Your task to perform on an android device: read, delete, or share a saved page in the chrome app Image 0: 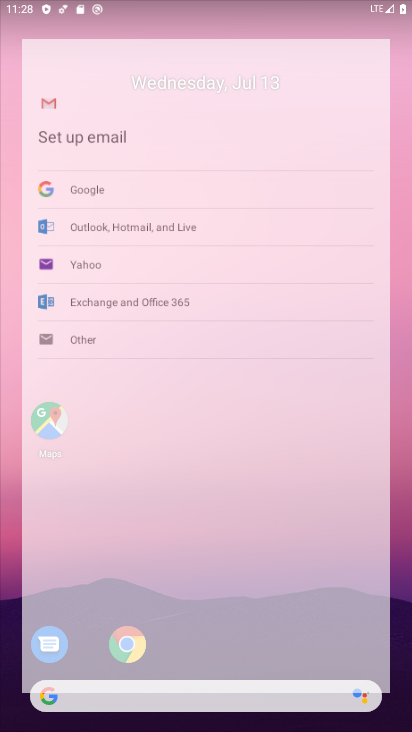
Step 0: drag from (194, 660) to (292, 191)
Your task to perform on an android device: read, delete, or share a saved page in the chrome app Image 1: 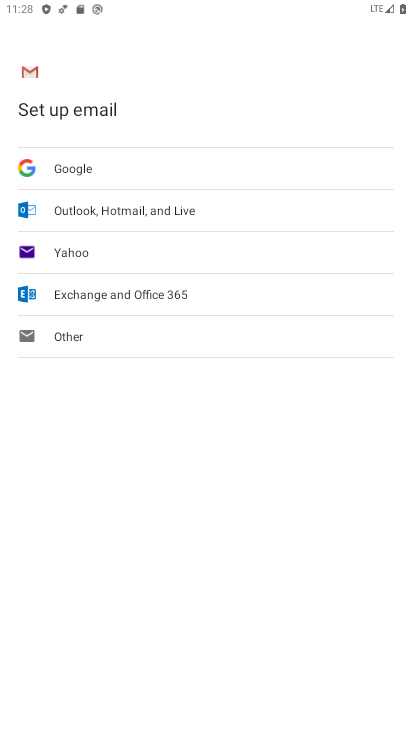
Step 1: press home button
Your task to perform on an android device: read, delete, or share a saved page in the chrome app Image 2: 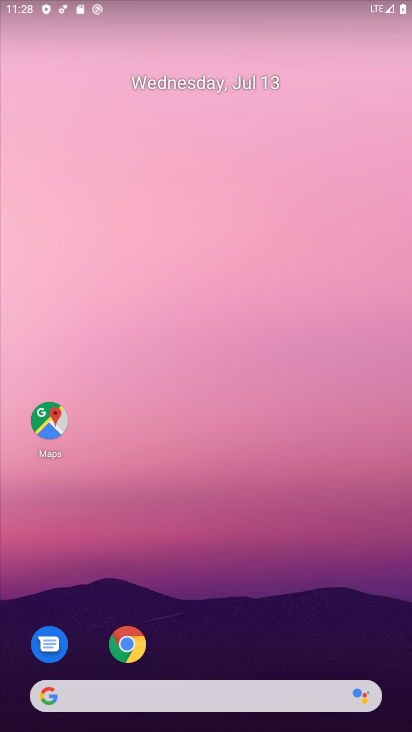
Step 2: click (129, 648)
Your task to perform on an android device: read, delete, or share a saved page in the chrome app Image 3: 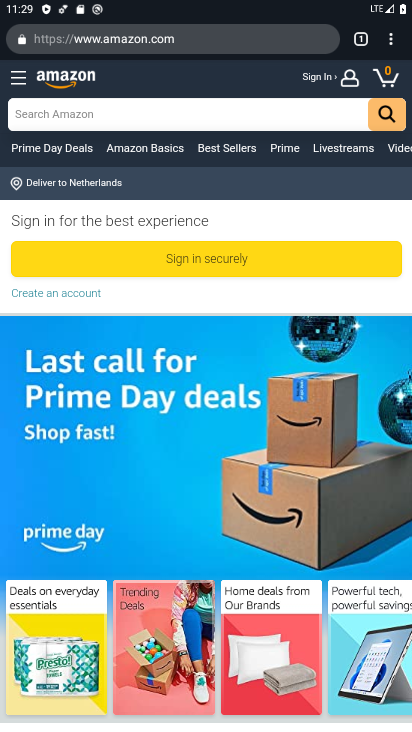
Step 3: drag from (389, 30) to (328, 291)
Your task to perform on an android device: read, delete, or share a saved page in the chrome app Image 4: 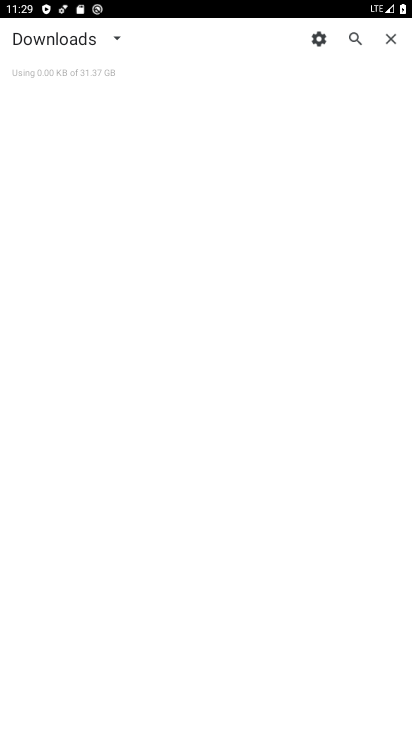
Step 4: click (76, 35)
Your task to perform on an android device: read, delete, or share a saved page in the chrome app Image 5: 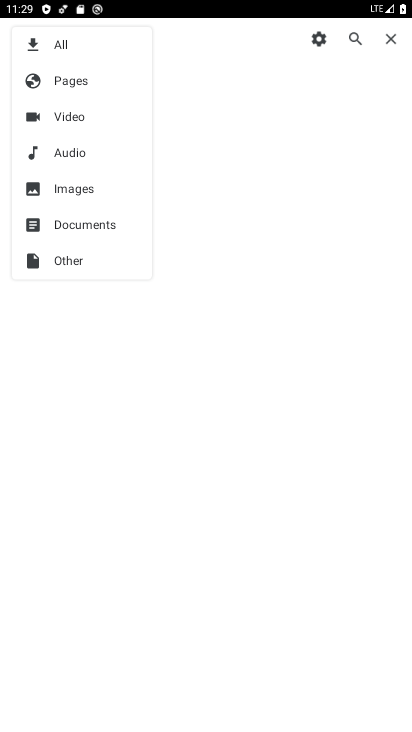
Step 5: click (93, 80)
Your task to perform on an android device: read, delete, or share a saved page in the chrome app Image 6: 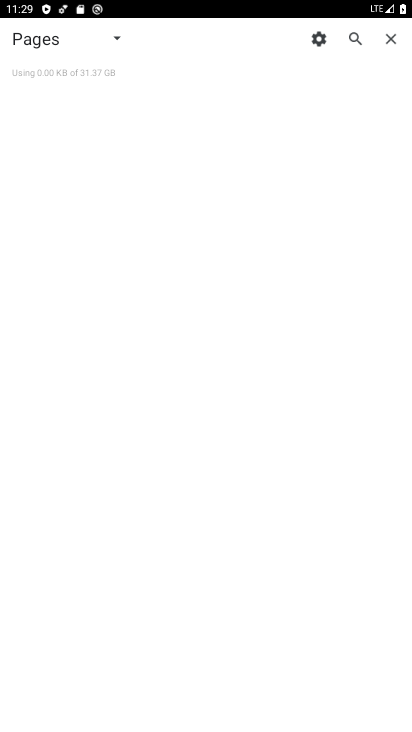
Step 6: task complete